Your task to perform on an android device: turn vacation reply on in the gmail app Image 0: 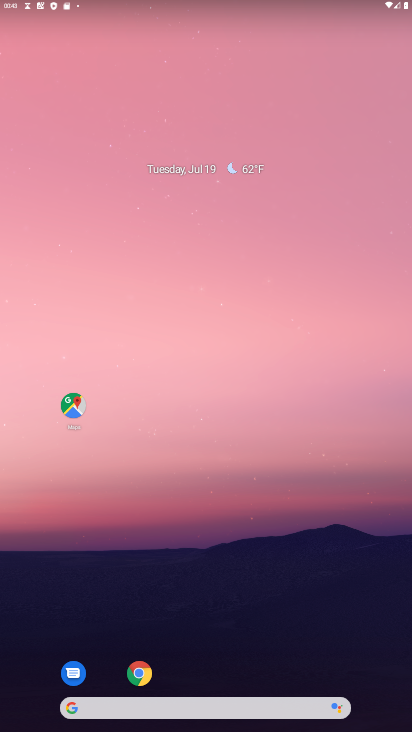
Step 0: drag from (311, 671) to (308, 375)
Your task to perform on an android device: turn vacation reply on in the gmail app Image 1: 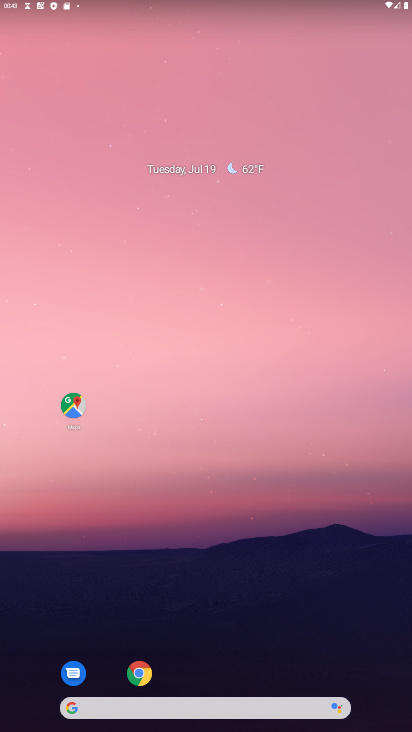
Step 1: drag from (259, 683) to (245, 215)
Your task to perform on an android device: turn vacation reply on in the gmail app Image 2: 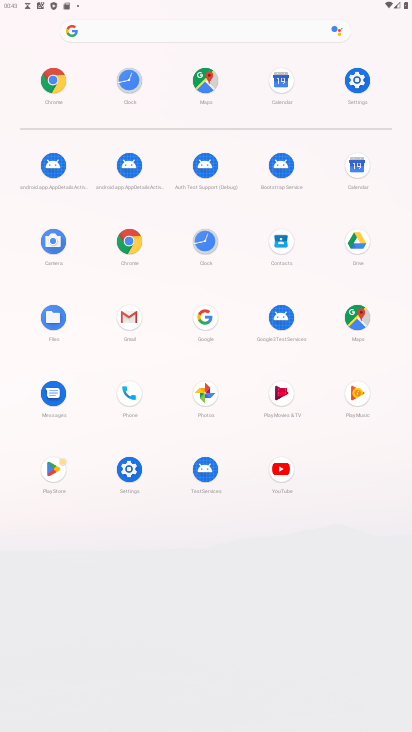
Step 2: click (131, 307)
Your task to perform on an android device: turn vacation reply on in the gmail app Image 3: 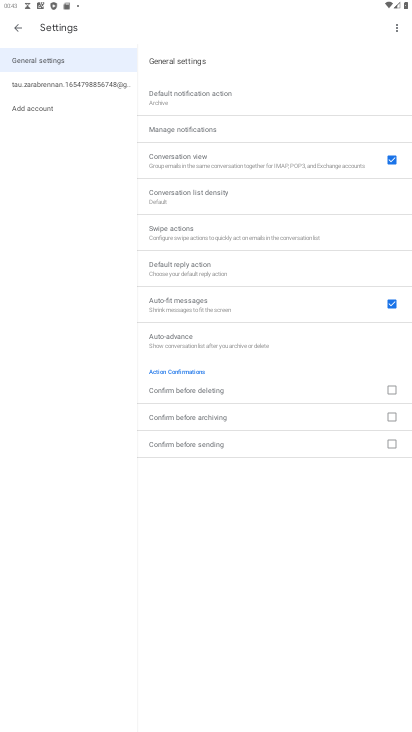
Step 3: click (65, 79)
Your task to perform on an android device: turn vacation reply on in the gmail app Image 4: 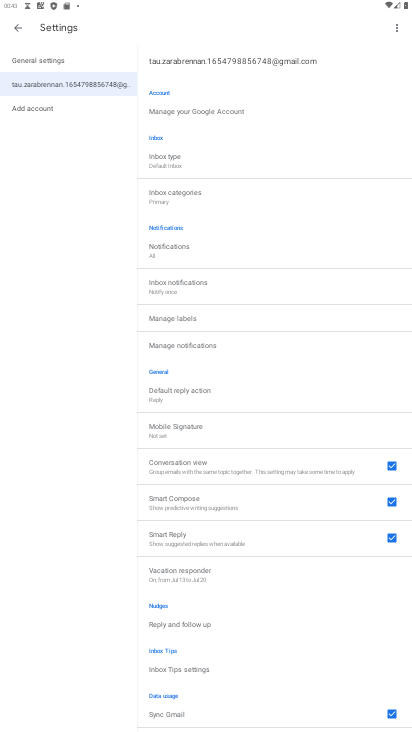
Step 4: drag from (238, 593) to (238, 393)
Your task to perform on an android device: turn vacation reply on in the gmail app Image 5: 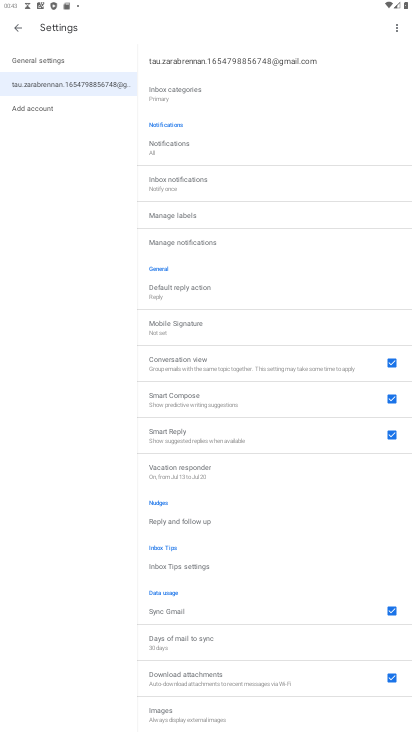
Step 5: click (194, 471)
Your task to perform on an android device: turn vacation reply on in the gmail app Image 6: 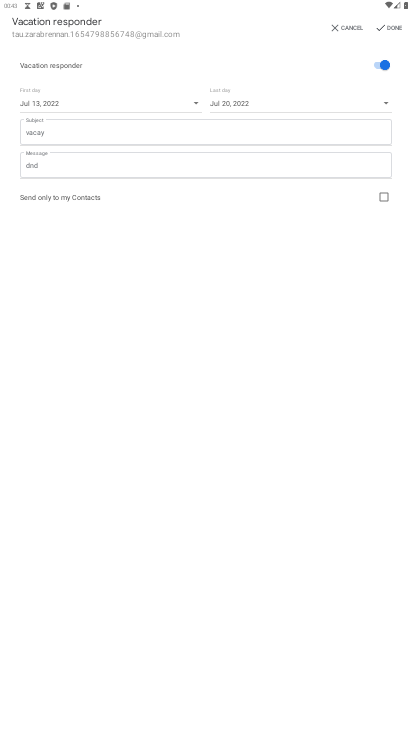
Step 6: task complete